Your task to perform on an android device: Search for Italian restaurants on Maps Image 0: 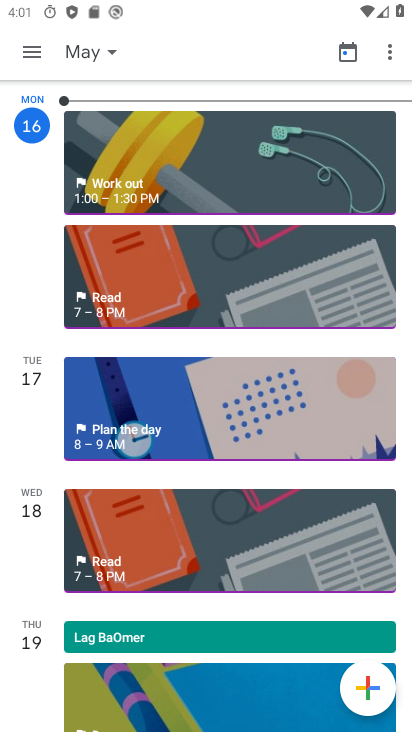
Step 0: drag from (326, 639) to (134, 85)
Your task to perform on an android device: Search for Italian restaurants on Maps Image 1: 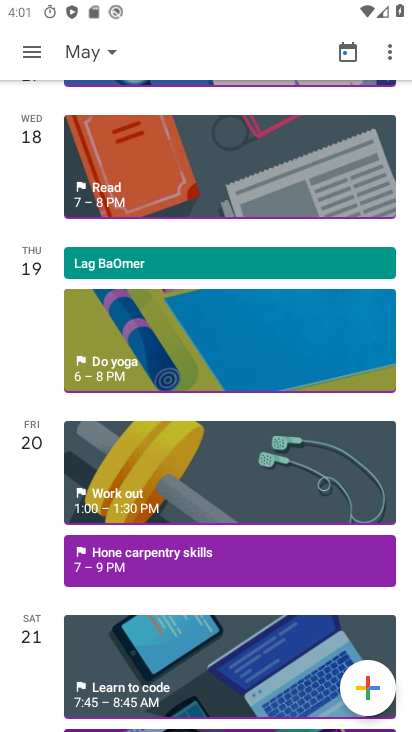
Step 1: drag from (239, 561) to (170, 204)
Your task to perform on an android device: Search for Italian restaurants on Maps Image 2: 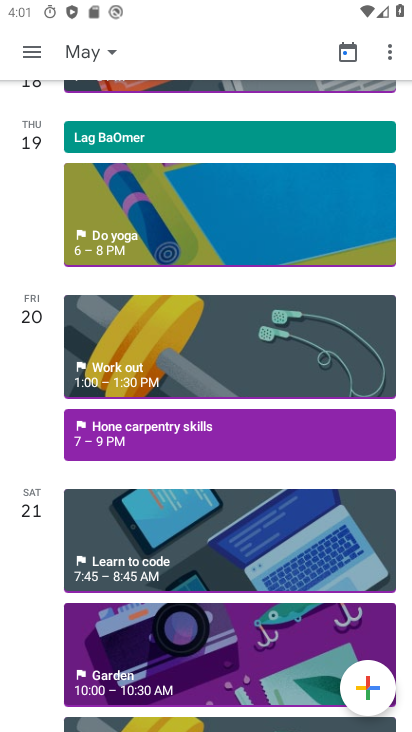
Step 2: drag from (116, 164) to (233, 569)
Your task to perform on an android device: Search for Italian restaurants on Maps Image 3: 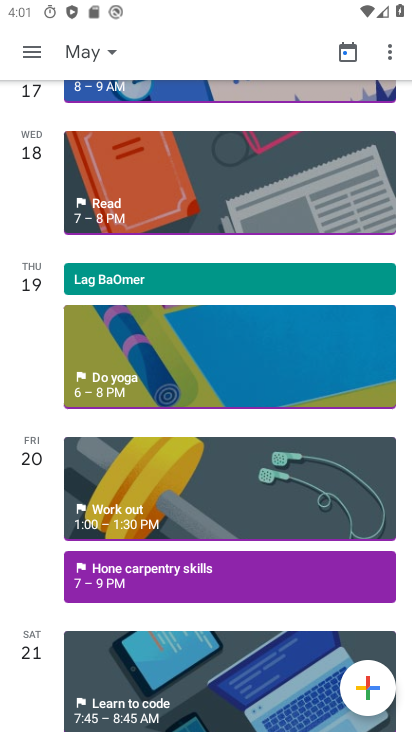
Step 3: drag from (151, 291) to (267, 601)
Your task to perform on an android device: Search for Italian restaurants on Maps Image 4: 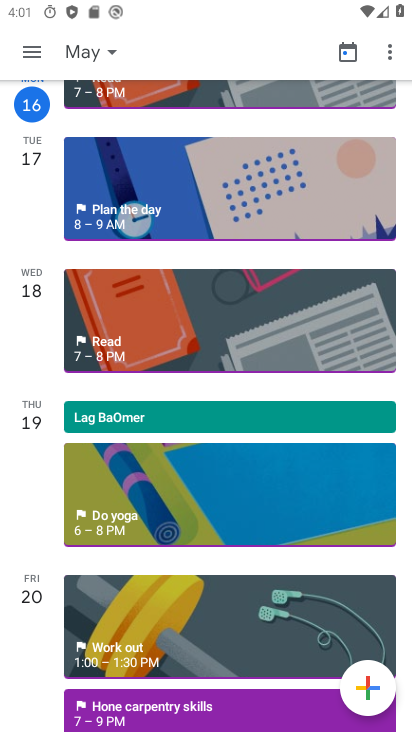
Step 4: drag from (86, 233) to (292, 652)
Your task to perform on an android device: Search for Italian restaurants on Maps Image 5: 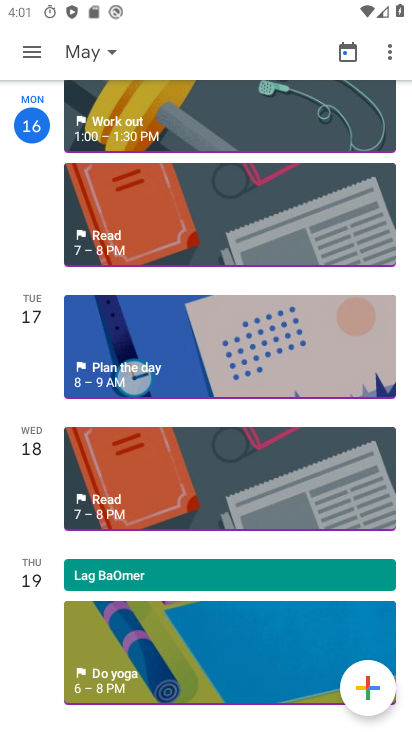
Step 5: drag from (130, 234) to (261, 700)
Your task to perform on an android device: Search for Italian restaurants on Maps Image 6: 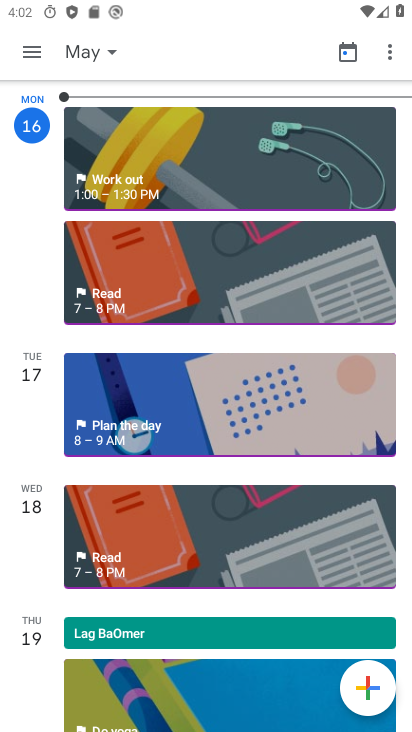
Step 6: drag from (137, 262) to (197, 521)
Your task to perform on an android device: Search for Italian restaurants on Maps Image 7: 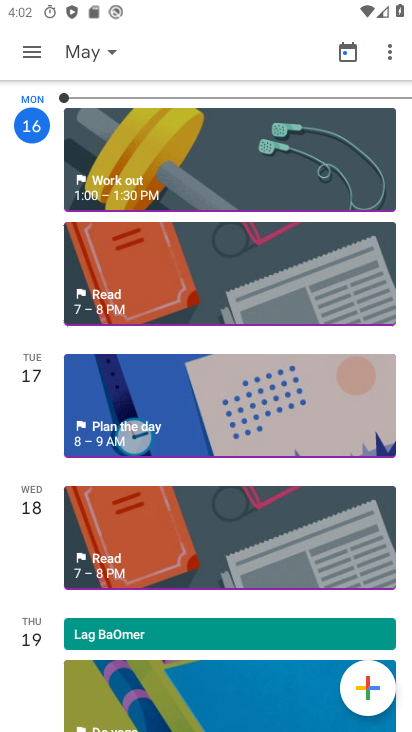
Step 7: drag from (66, 259) to (141, 512)
Your task to perform on an android device: Search for Italian restaurants on Maps Image 8: 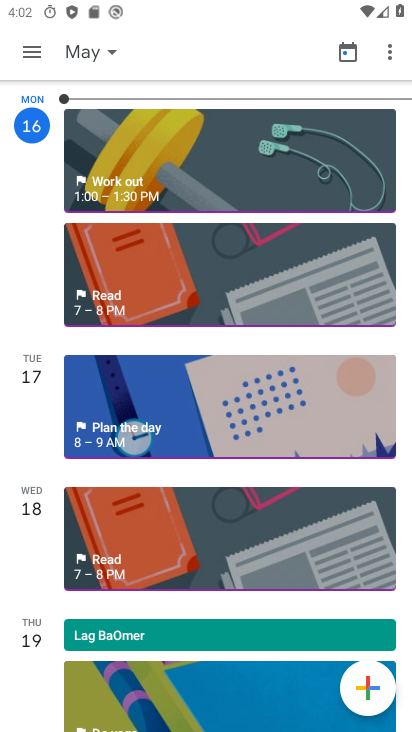
Step 8: press back button
Your task to perform on an android device: Search for Italian restaurants on Maps Image 9: 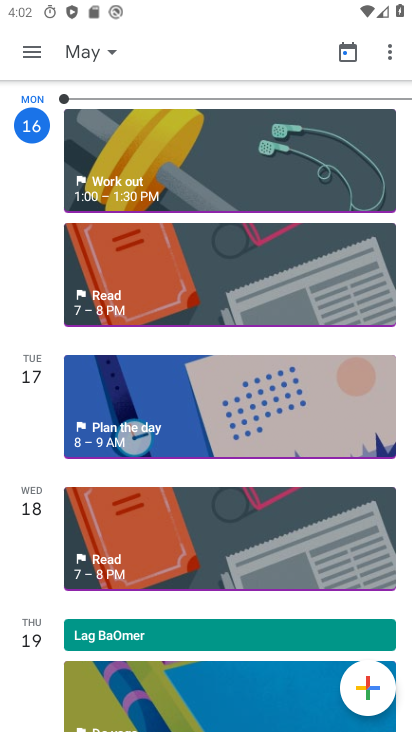
Step 9: press back button
Your task to perform on an android device: Search for Italian restaurants on Maps Image 10: 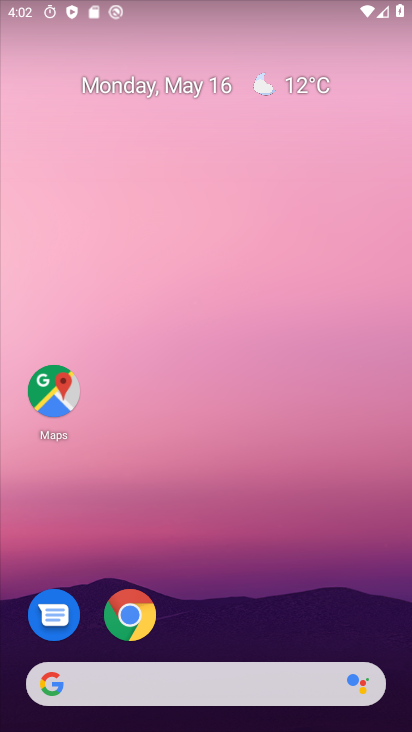
Step 10: drag from (230, 424) to (176, 38)
Your task to perform on an android device: Search for Italian restaurants on Maps Image 11: 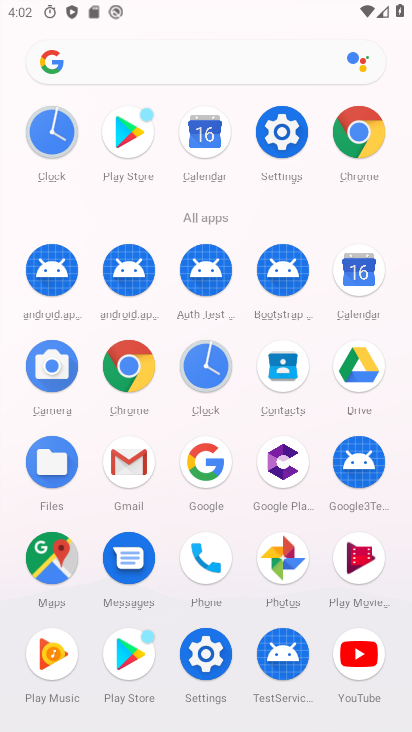
Step 11: click (361, 138)
Your task to perform on an android device: Search for Italian restaurants on Maps Image 12: 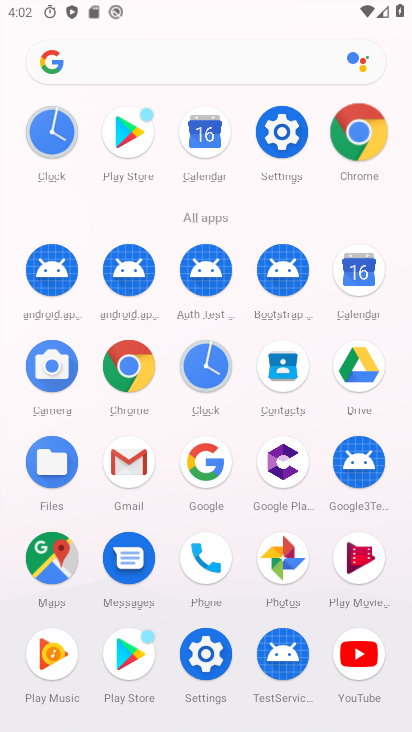
Step 12: click (361, 138)
Your task to perform on an android device: Search for Italian restaurants on Maps Image 13: 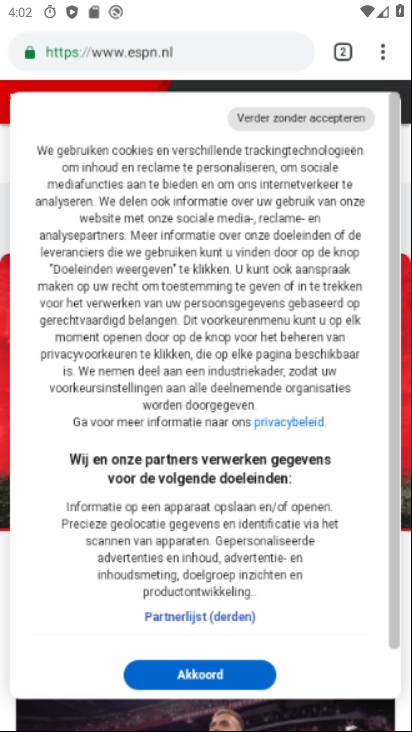
Step 13: click (381, 48)
Your task to perform on an android device: Search for Italian restaurants on Maps Image 14: 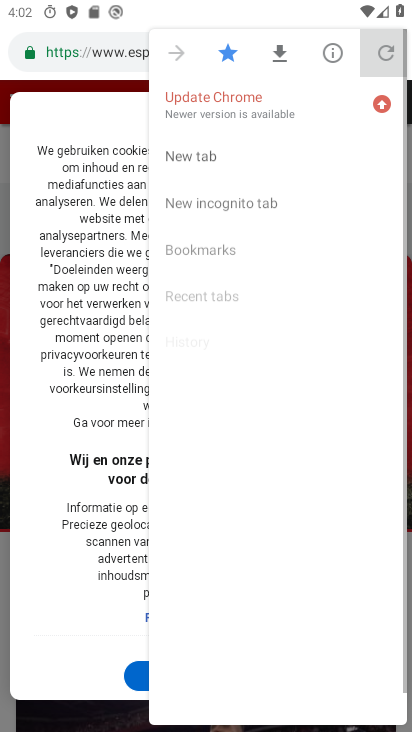
Step 14: click (383, 48)
Your task to perform on an android device: Search for Italian restaurants on Maps Image 15: 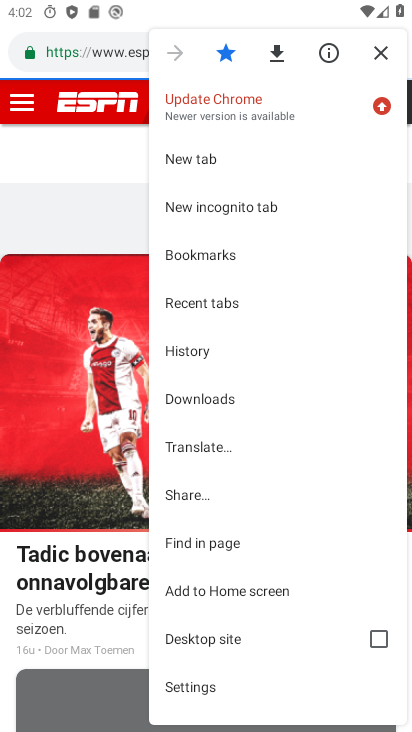
Step 15: drag from (198, 586) to (191, 166)
Your task to perform on an android device: Search for Italian restaurants on Maps Image 16: 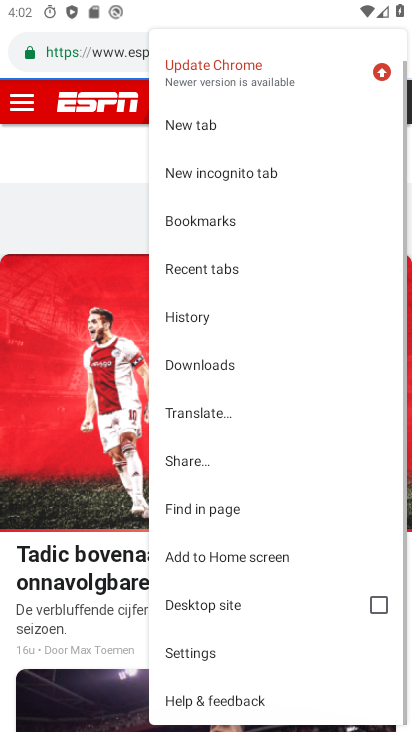
Step 16: drag from (241, 410) to (210, 112)
Your task to perform on an android device: Search for Italian restaurants on Maps Image 17: 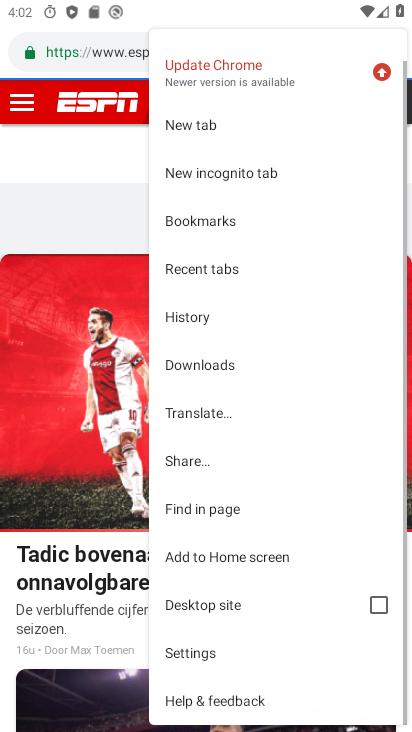
Step 17: drag from (215, 506) to (172, 81)
Your task to perform on an android device: Search for Italian restaurants on Maps Image 18: 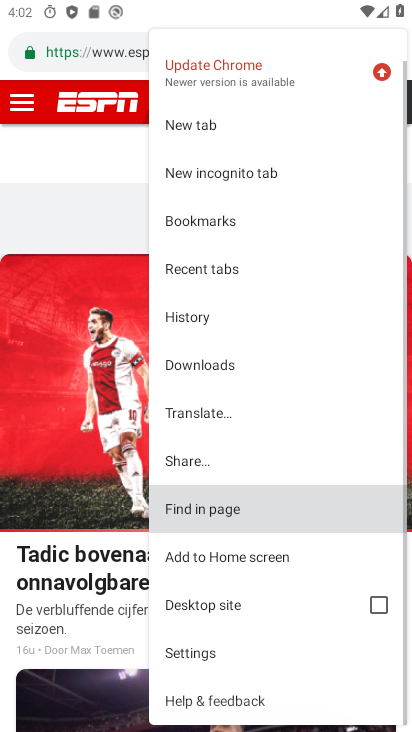
Step 18: drag from (247, 581) to (152, 32)
Your task to perform on an android device: Search for Italian restaurants on Maps Image 19: 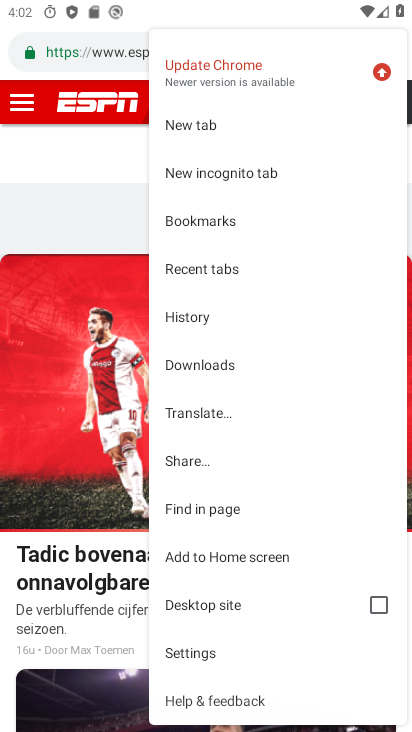
Step 19: drag from (203, 489) to (169, 152)
Your task to perform on an android device: Search for Italian restaurants on Maps Image 20: 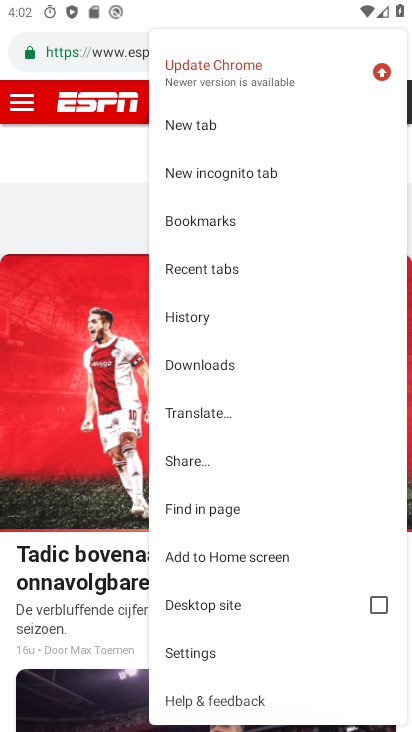
Step 20: drag from (199, 384) to (172, 26)
Your task to perform on an android device: Search for Italian restaurants on Maps Image 21: 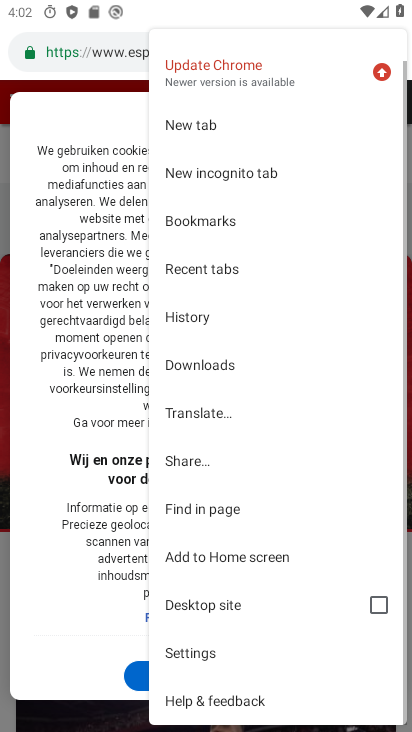
Step 21: drag from (205, 573) to (173, 28)
Your task to perform on an android device: Search for Italian restaurants on Maps Image 22: 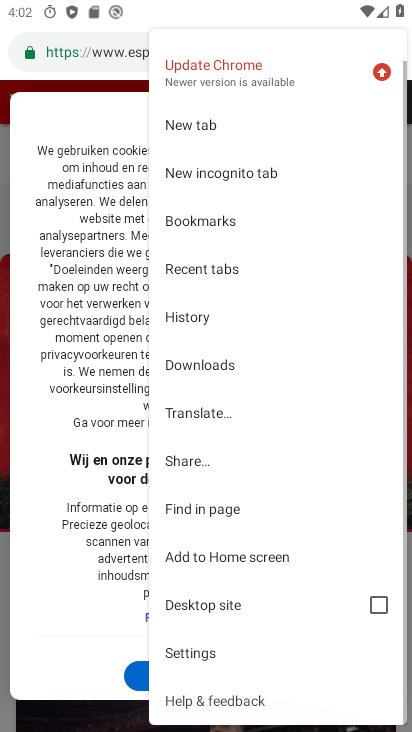
Step 22: drag from (181, 492) to (153, 60)
Your task to perform on an android device: Search for Italian restaurants on Maps Image 23: 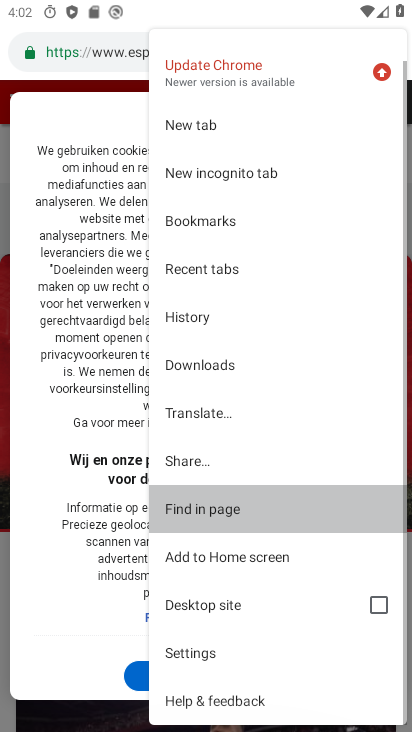
Step 23: drag from (202, 270) to (192, 131)
Your task to perform on an android device: Search for Italian restaurants on Maps Image 24: 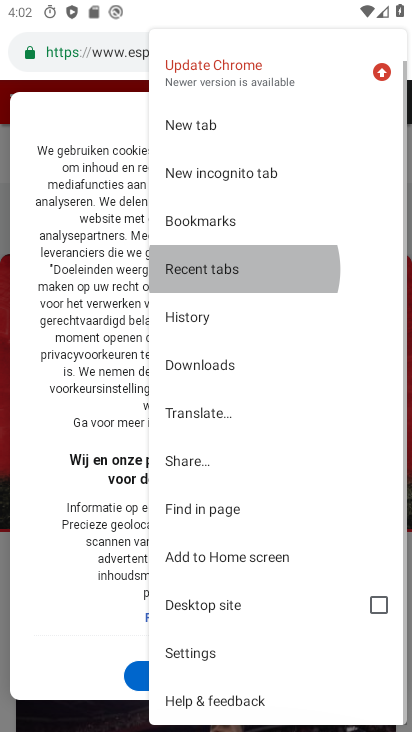
Step 24: drag from (217, 561) to (202, 103)
Your task to perform on an android device: Search for Italian restaurants on Maps Image 25: 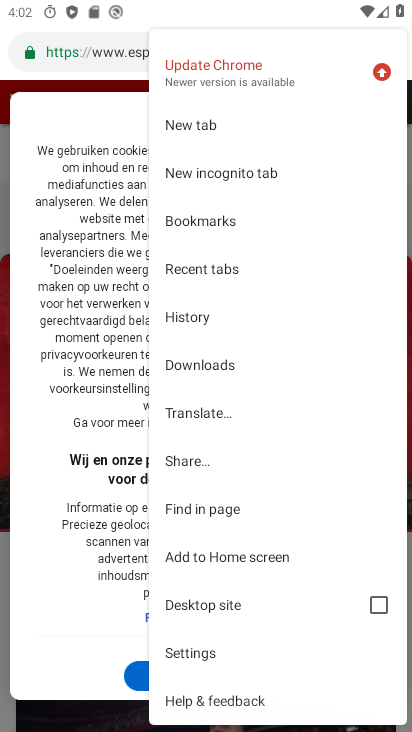
Step 25: drag from (214, 443) to (202, 155)
Your task to perform on an android device: Search for Italian restaurants on Maps Image 26: 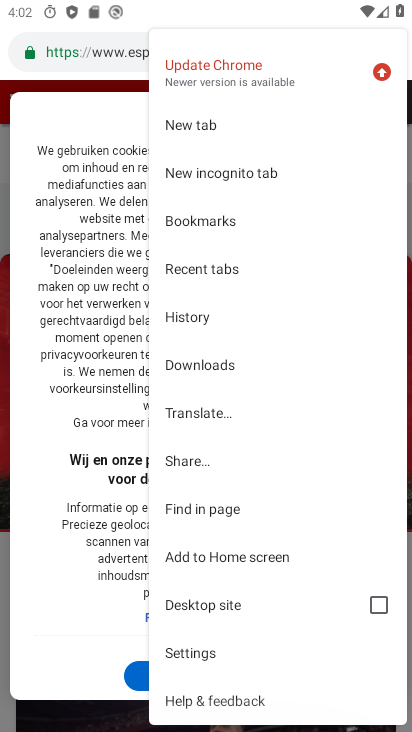
Step 26: drag from (233, 559) to (210, 159)
Your task to perform on an android device: Search for Italian restaurants on Maps Image 27: 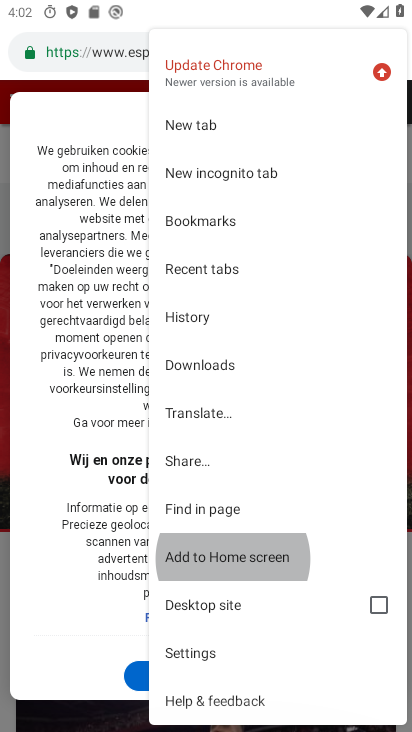
Step 27: drag from (183, 272) to (183, 225)
Your task to perform on an android device: Search for Italian restaurants on Maps Image 28: 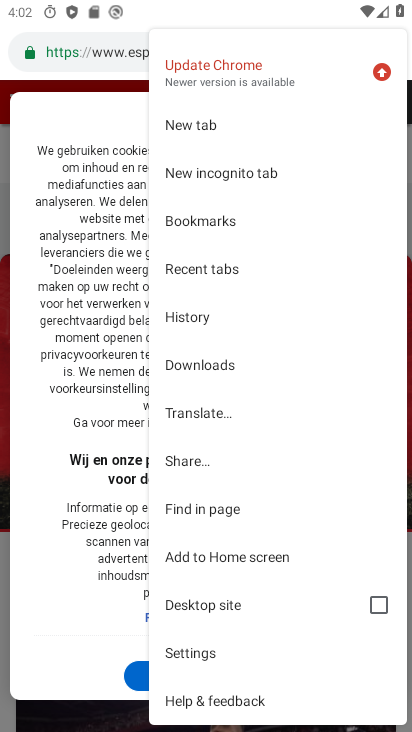
Step 28: drag from (234, 397) to (230, 193)
Your task to perform on an android device: Search for Italian restaurants on Maps Image 29: 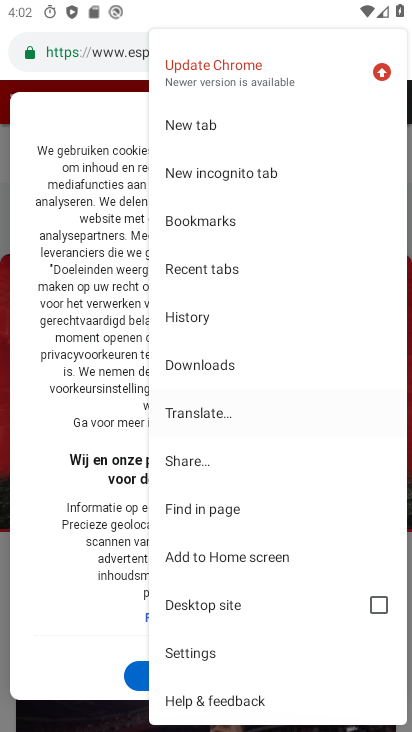
Step 29: drag from (227, 361) to (212, 78)
Your task to perform on an android device: Search for Italian restaurants on Maps Image 30: 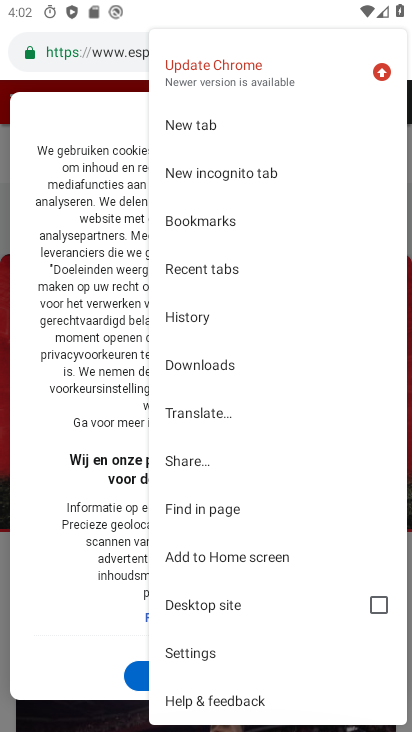
Step 30: drag from (217, 484) to (183, 88)
Your task to perform on an android device: Search for Italian restaurants on Maps Image 31: 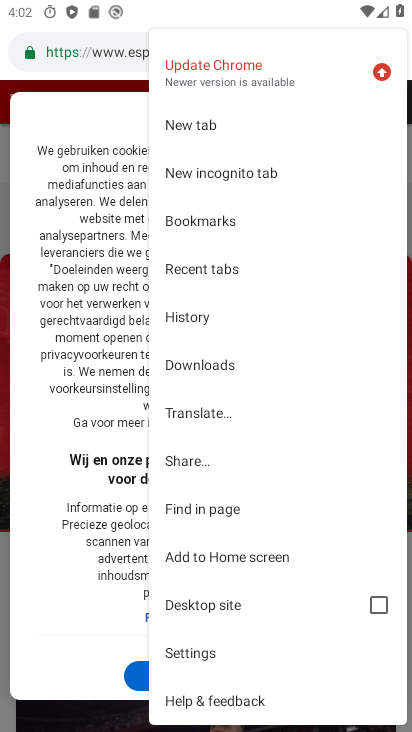
Step 31: drag from (214, 478) to (155, 80)
Your task to perform on an android device: Search for Italian restaurants on Maps Image 32: 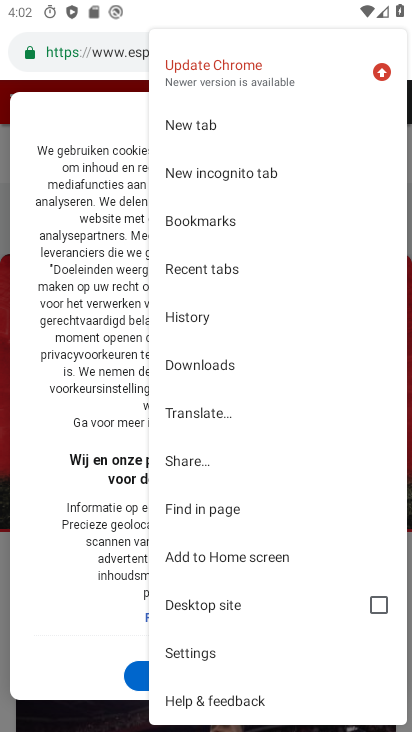
Step 32: drag from (197, 463) to (217, 10)
Your task to perform on an android device: Search for Italian restaurants on Maps Image 33: 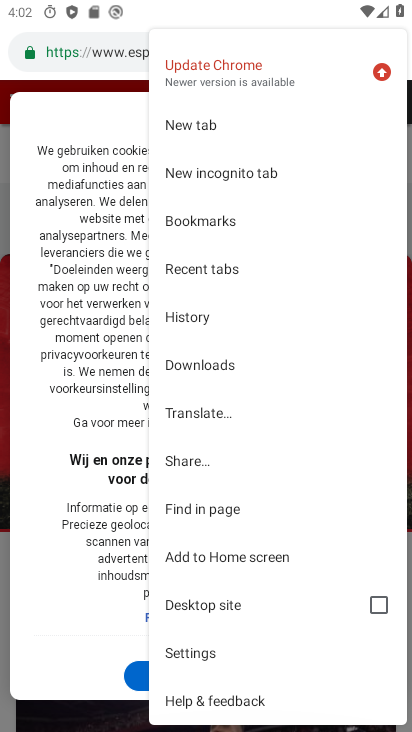
Step 33: drag from (195, 178) to (197, 78)
Your task to perform on an android device: Search for Italian restaurants on Maps Image 34: 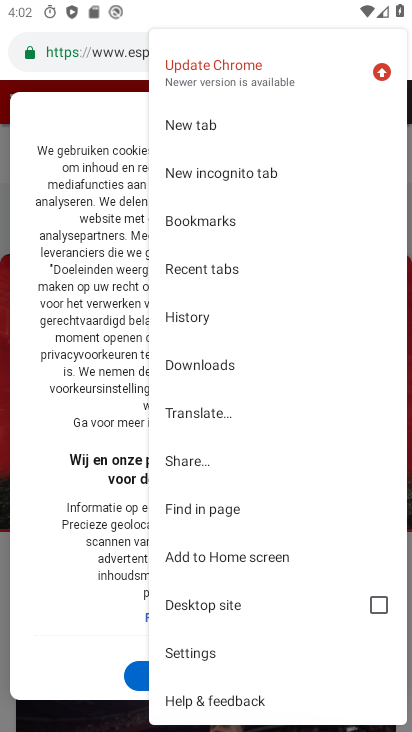
Step 34: drag from (263, 446) to (268, 18)
Your task to perform on an android device: Search for Italian restaurants on Maps Image 35: 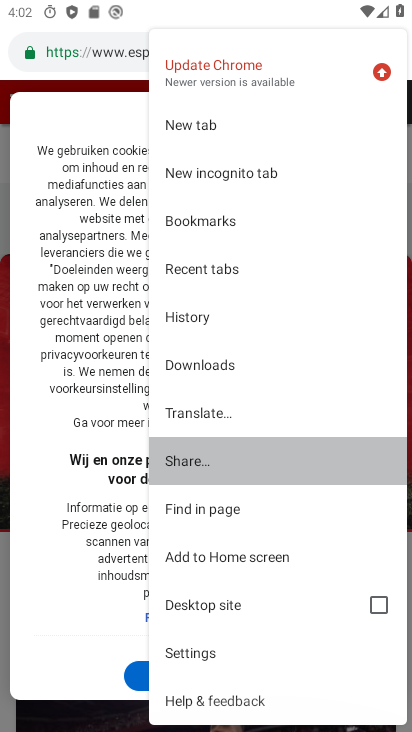
Step 35: drag from (212, 470) to (211, 108)
Your task to perform on an android device: Search for Italian restaurants on Maps Image 36: 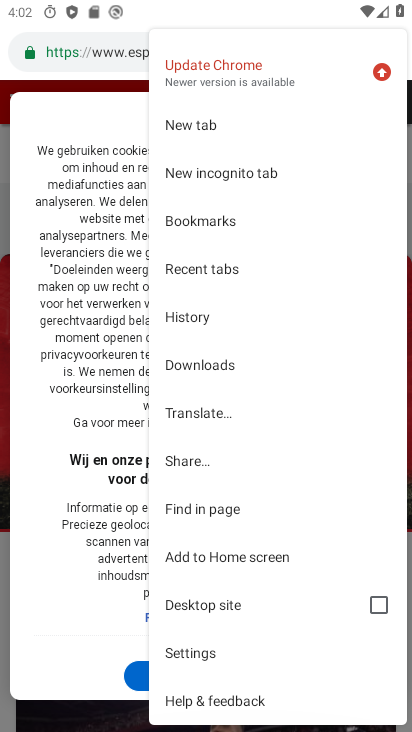
Step 36: drag from (205, 472) to (219, 145)
Your task to perform on an android device: Search for Italian restaurants on Maps Image 37: 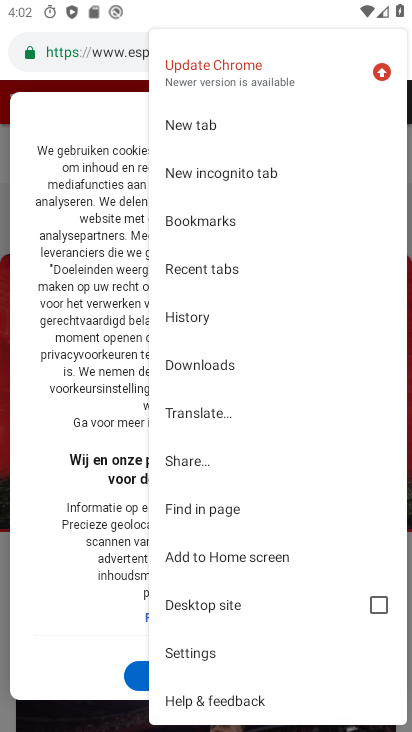
Step 37: drag from (253, 494) to (250, 51)
Your task to perform on an android device: Search for Italian restaurants on Maps Image 38: 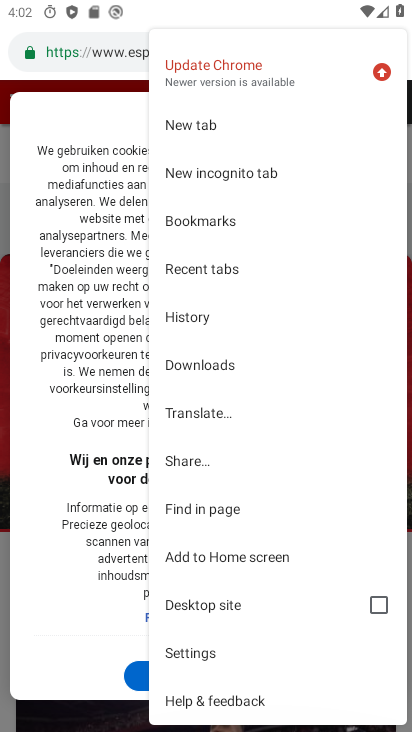
Step 38: drag from (196, 453) to (216, 110)
Your task to perform on an android device: Search for Italian restaurants on Maps Image 39: 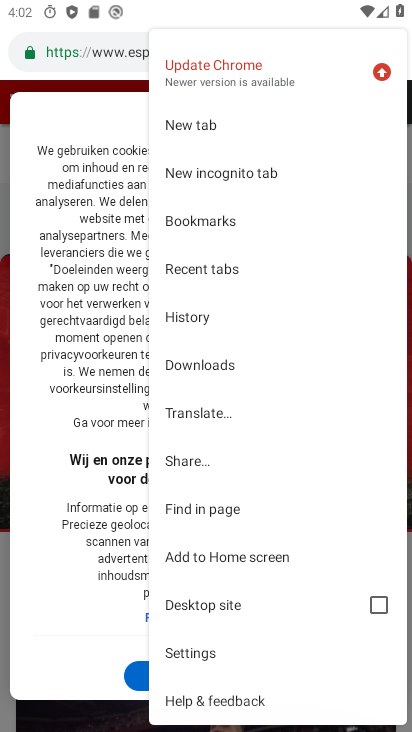
Step 39: drag from (181, 440) to (245, 90)
Your task to perform on an android device: Search for Italian restaurants on Maps Image 40: 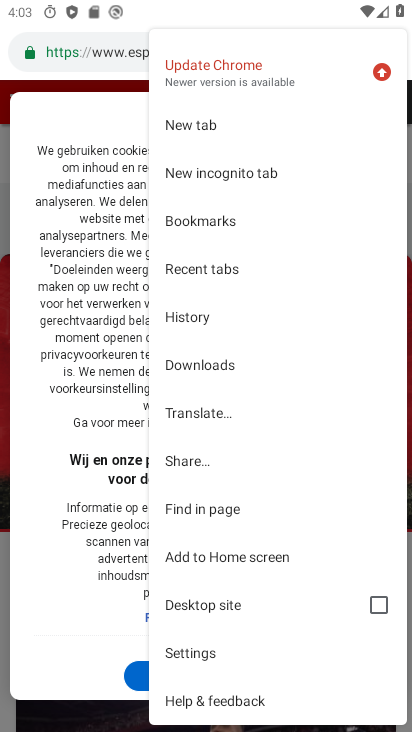
Step 40: press back button
Your task to perform on an android device: Search for Italian restaurants on Maps Image 41: 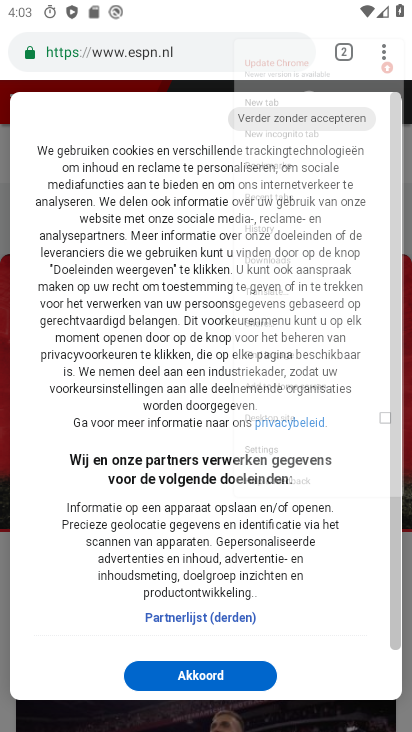
Step 41: press back button
Your task to perform on an android device: Search for Italian restaurants on Maps Image 42: 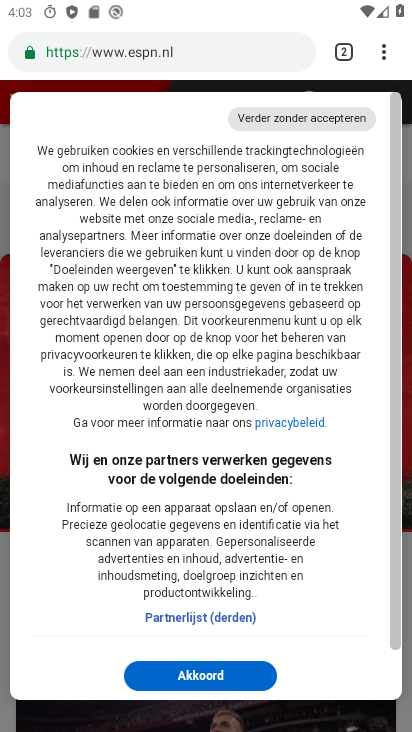
Step 42: press back button
Your task to perform on an android device: Search for Italian restaurants on Maps Image 43: 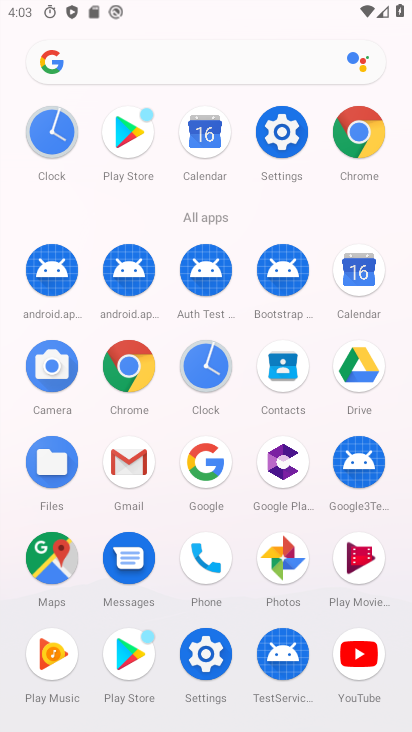
Step 43: click (54, 557)
Your task to perform on an android device: Search for Italian restaurants on Maps Image 44: 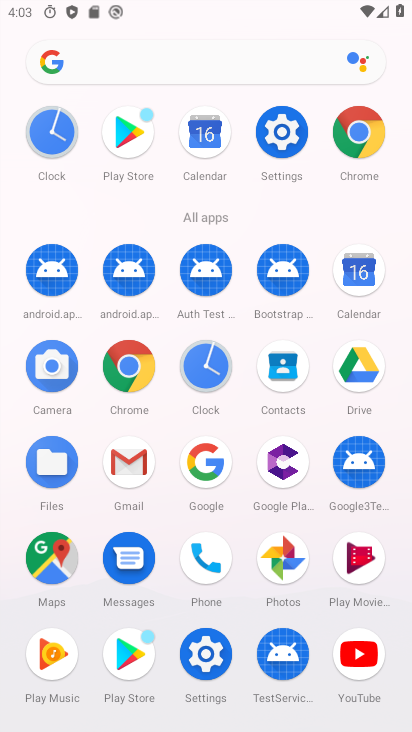
Step 44: click (50, 557)
Your task to perform on an android device: Search for Italian restaurants on Maps Image 45: 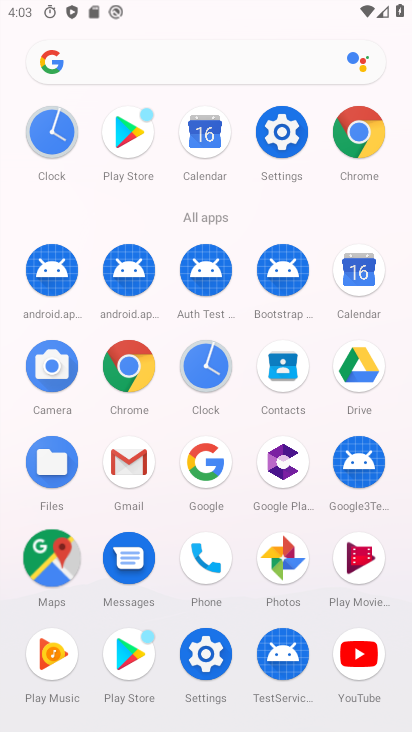
Step 45: click (44, 559)
Your task to perform on an android device: Search for Italian restaurants on Maps Image 46: 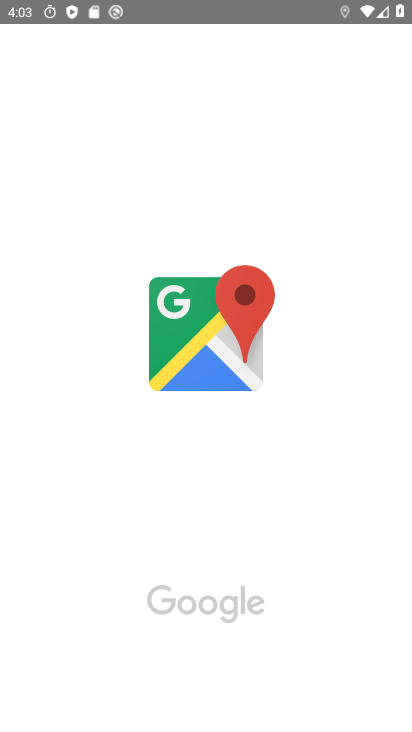
Step 46: click (40, 546)
Your task to perform on an android device: Search for Italian restaurants on Maps Image 47: 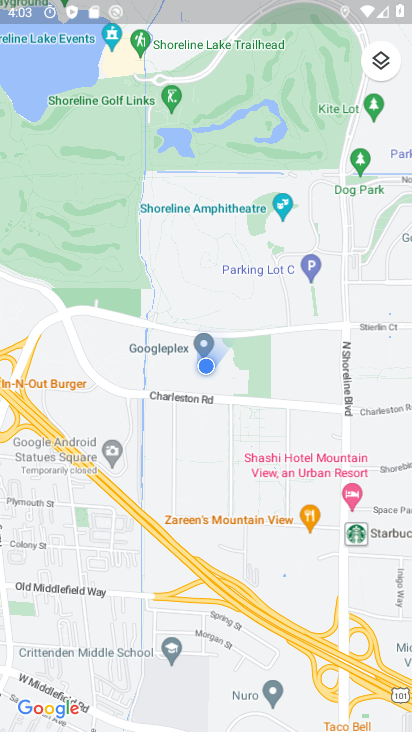
Step 47: press home button
Your task to perform on an android device: Search for Italian restaurants on Maps Image 48: 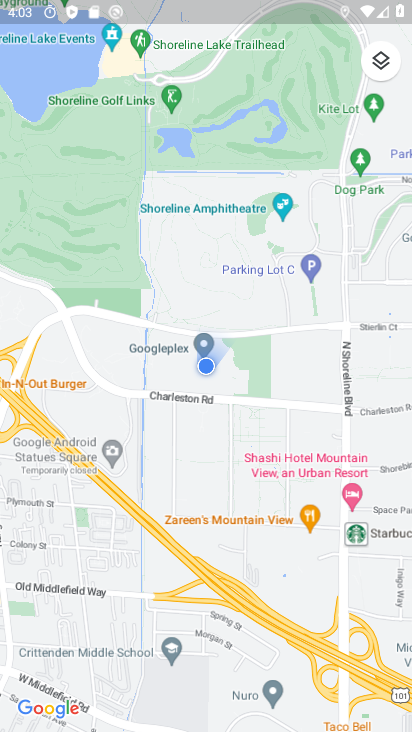
Step 48: press home button
Your task to perform on an android device: Search for Italian restaurants on Maps Image 49: 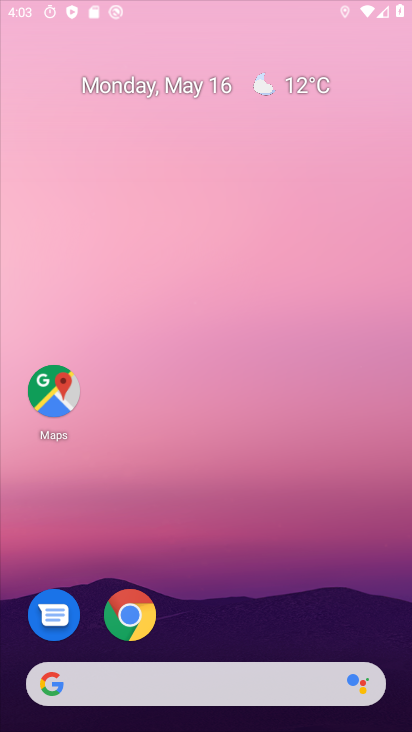
Step 49: press home button
Your task to perform on an android device: Search for Italian restaurants on Maps Image 50: 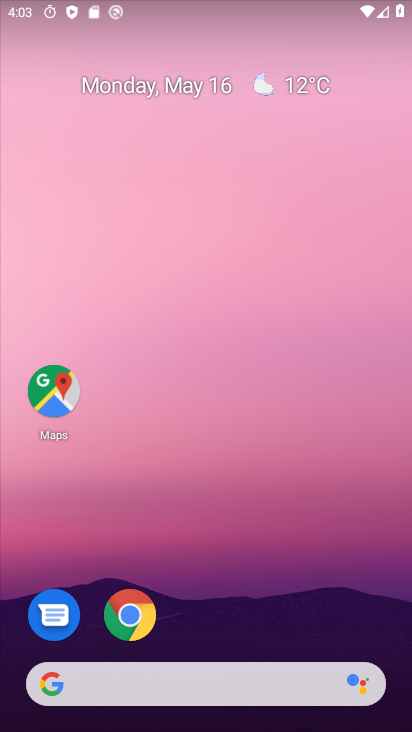
Step 50: drag from (168, 604) to (97, 32)
Your task to perform on an android device: Search for Italian restaurants on Maps Image 51: 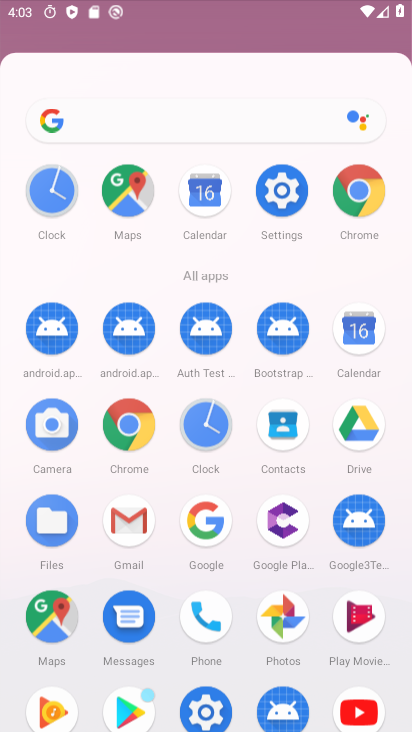
Step 51: drag from (235, 437) to (152, 4)
Your task to perform on an android device: Search for Italian restaurants on Maps Image 52: 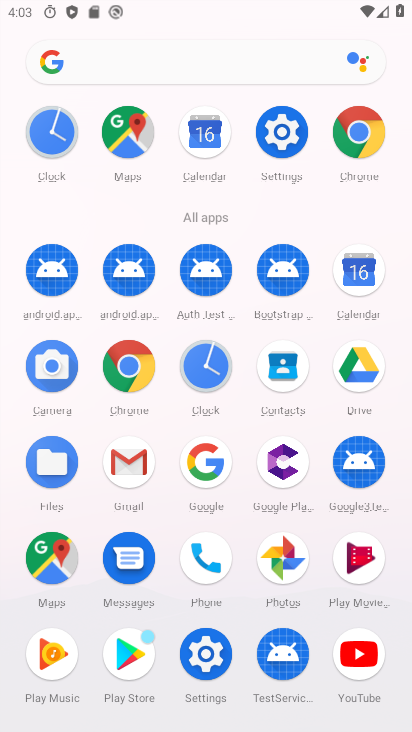
Step 52: click (62, 562)
Your task to perform on an android device: Search for Italian restaurants on Maps Image 53: 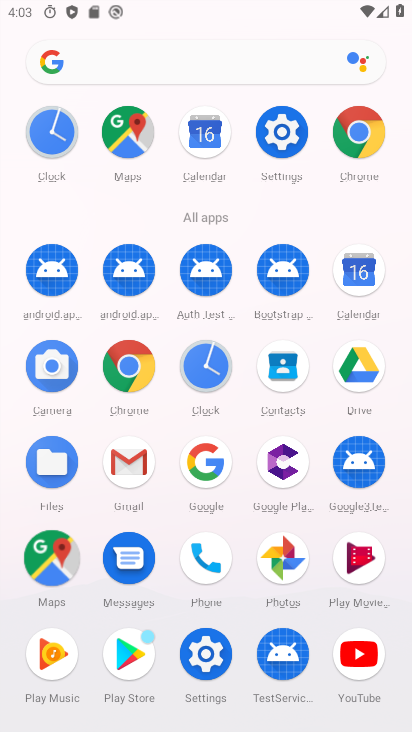
Step 53: click (62, 562)
Your task to perform on an android device: Search for Italian restaurants on Maps Image 54: 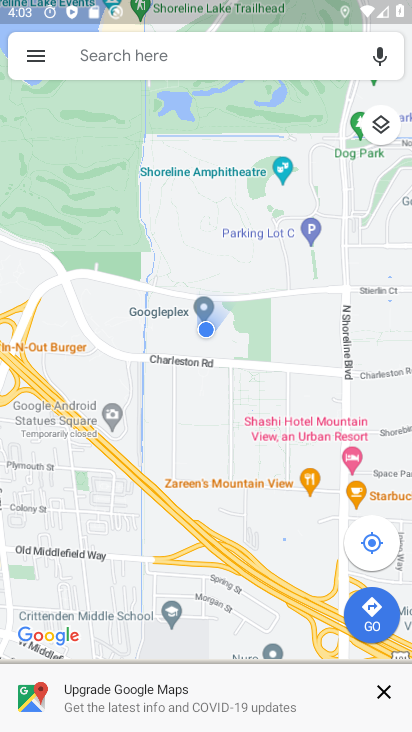
Step 54: click (81, 58)
Your task to perform on an android device: Search for Italian restaurants on Maps Image 55: 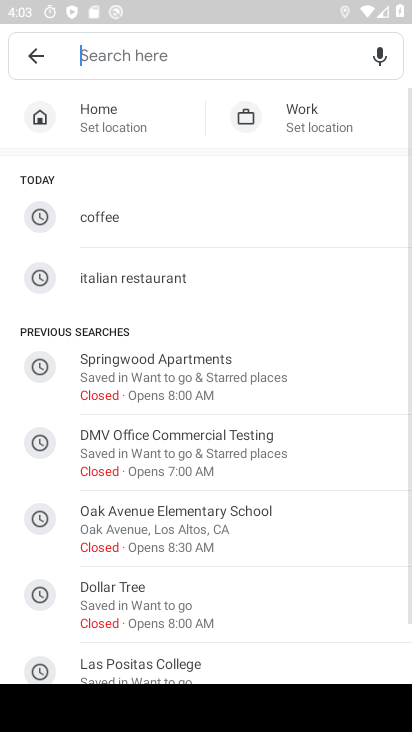
Step 55: click (127, 287)
Your task to perform on an android device: Search for Italian restaurants on Maps Image 56: 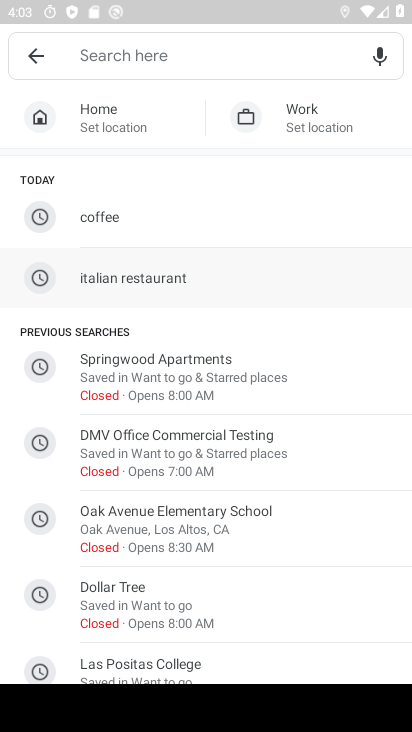
Step 56: click (120, 285)
Your task to perform on an android device: Search for Italian restaurants on Maps Image 57: 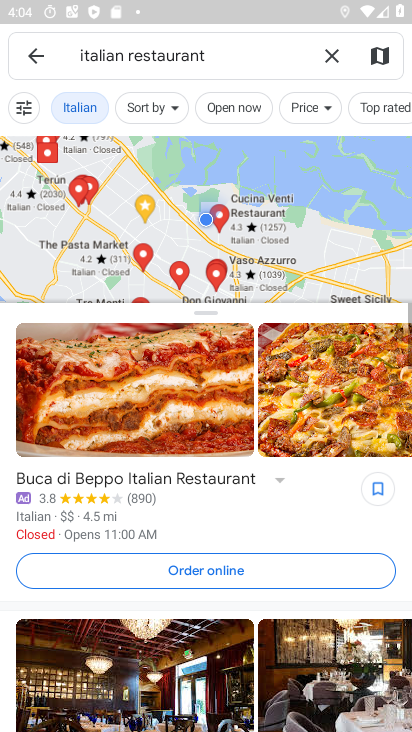
Step 57: task complete